Your task to perform on an android device: turn off improve location accuracy Image 0: 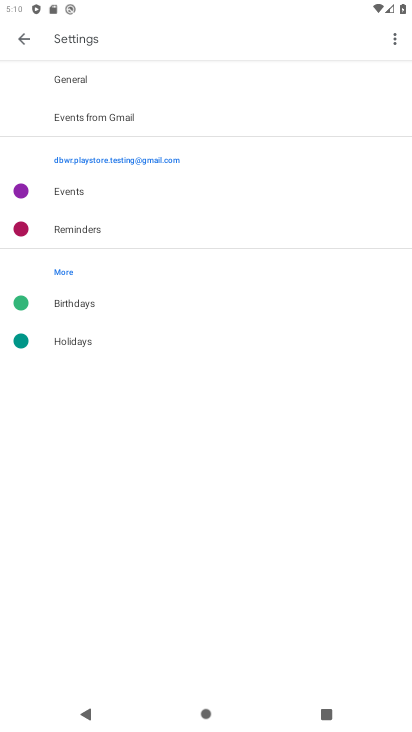
Step 0: press home button
Your task to perform on an android device: turn off improve location accuracy Image 1: 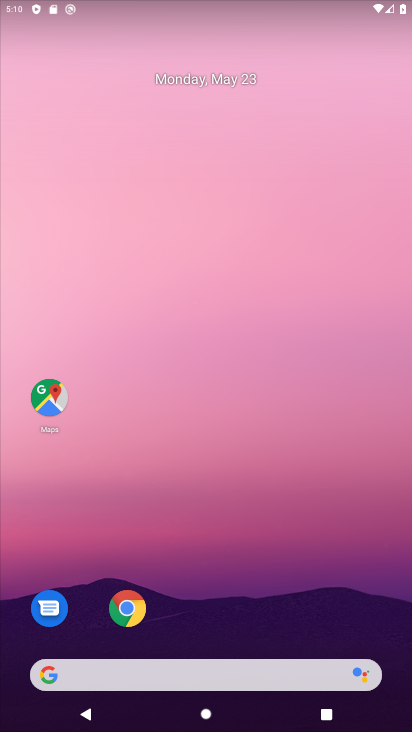
Step 1: drag from (188, 621) to (189, 179)
Your task to perform on an android device: turn off improve location accuracy Image 2: 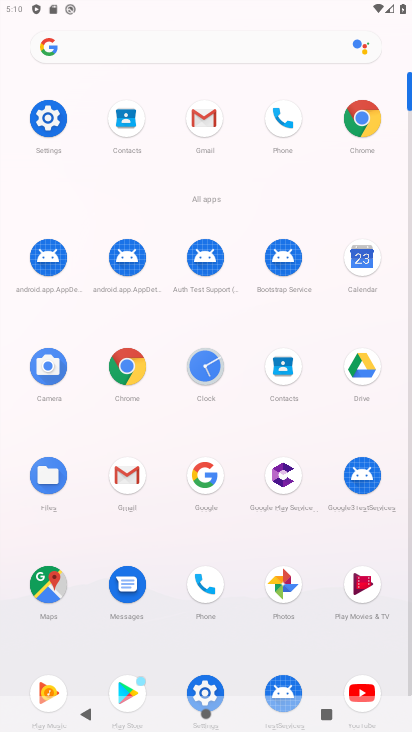
Step 2: click (210, 689)
Your task to perform on an android device: turn off improve location accuracy Image 3: 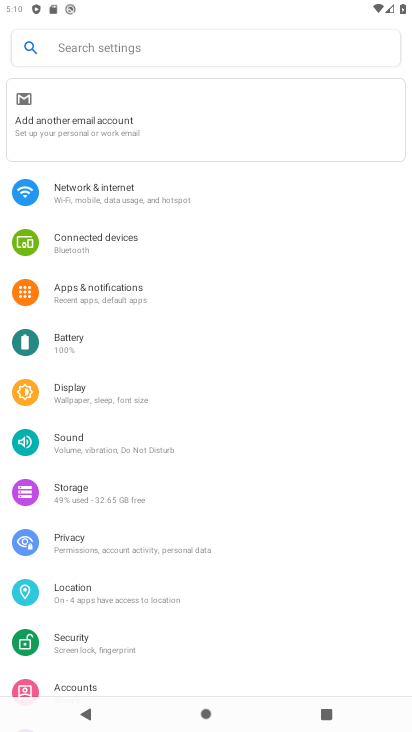
Step 3: click (87, 589)
Your task to perform on an android device: turn off improve location accuracy Image 4: 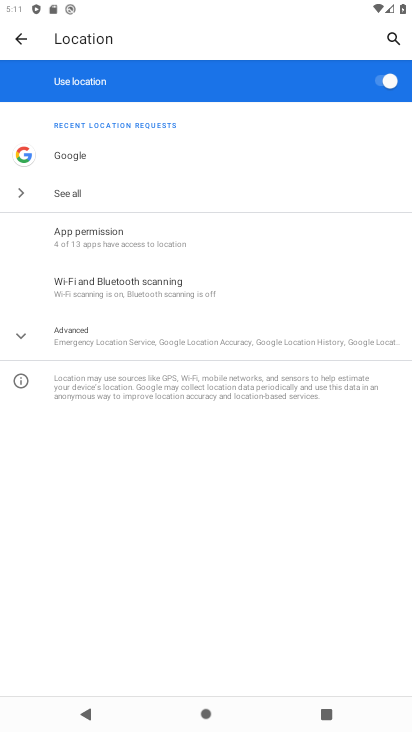
Step 4: click (92, 340)
Your task to perform on an android device: turn off improve location accuracy Image 5: 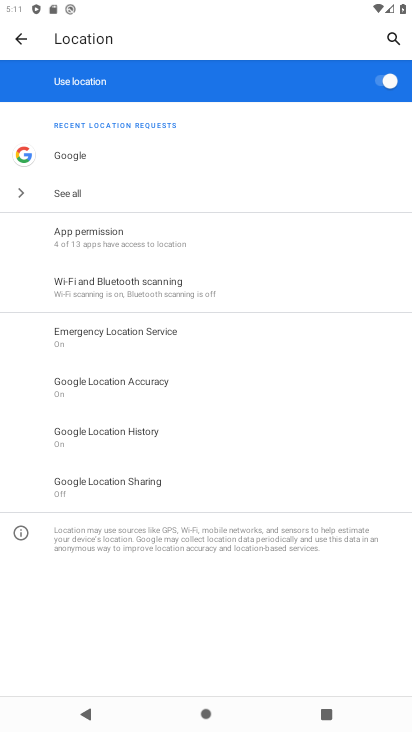
Step 5: click (110, 399)
Your task to perform on an android device: turn off improve location accuracy Image 6: 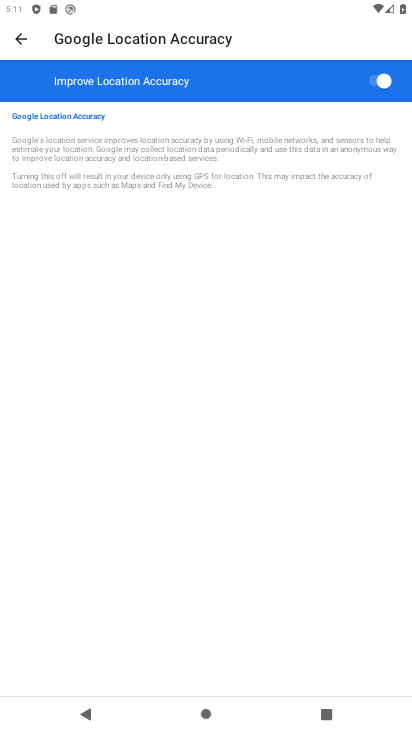
Step 6: click (370, 76)
Your task to perform on an android device: turn off improve location accuracy Image 7: 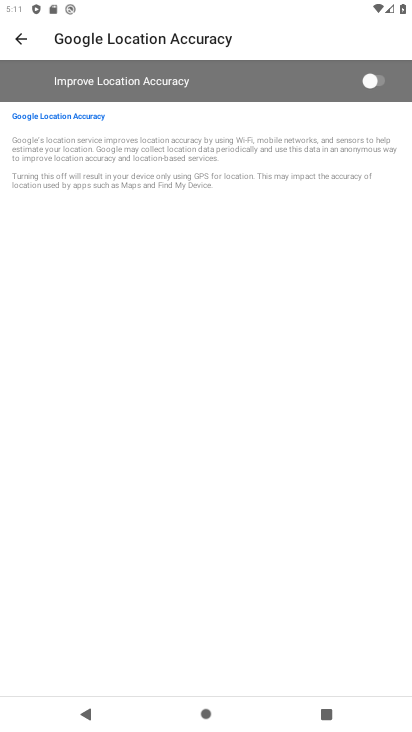
Step 7: task complete